Your task to perform on an android device: turn off sleep mode Image 0: 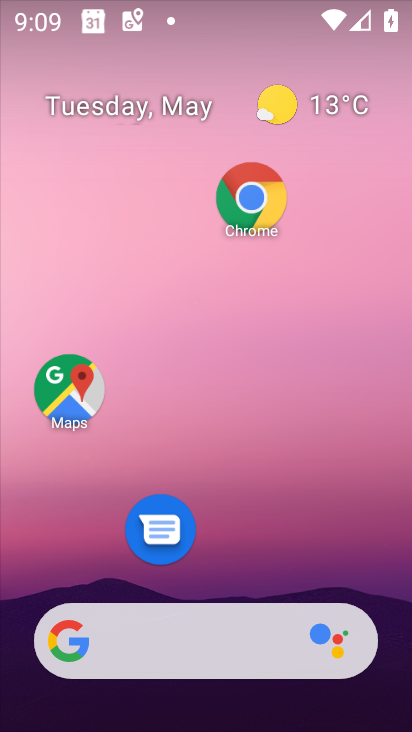
Step 0: drag from (322, 518) to (340, 314)
Your task to perform on an android device: turn off sleep mode Image 1: 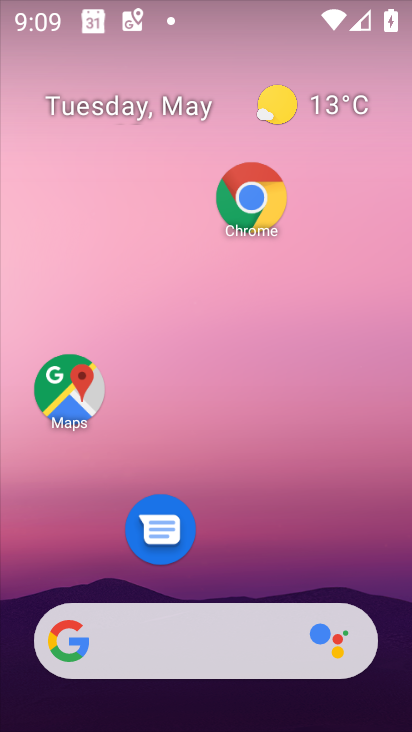
Step 1: drag from (309, 464) to (310, 9)
Your task to perform on an android device: turn off sleep mode Image 2: 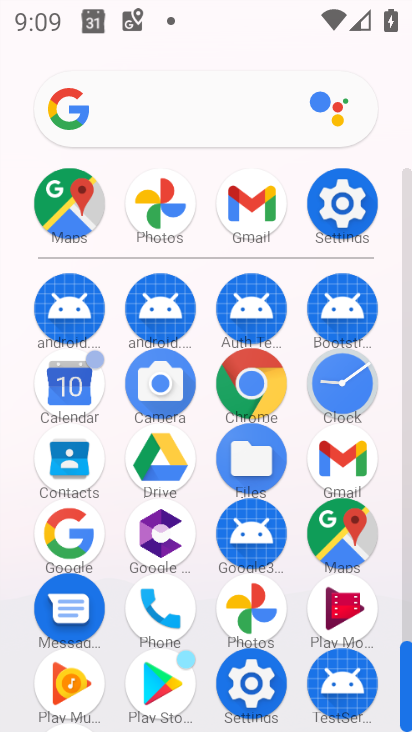
Step 2: click (320, 206)
Your task to perform on an android device: turn off sleep mode Image 3: 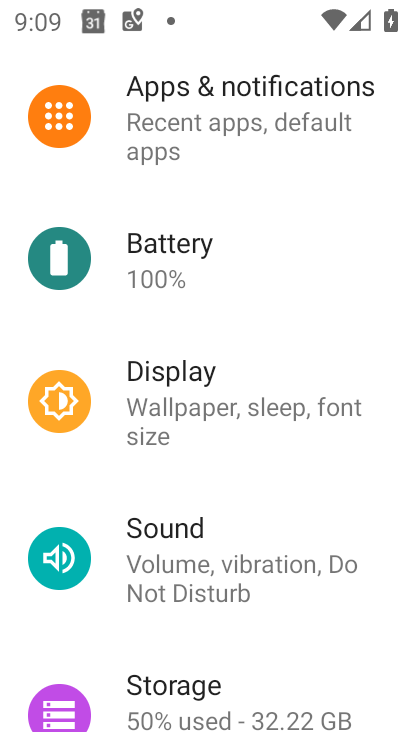
Step 3: click (266, 441)
Your task to perform on an android device: turn off sleep mode Image 4: 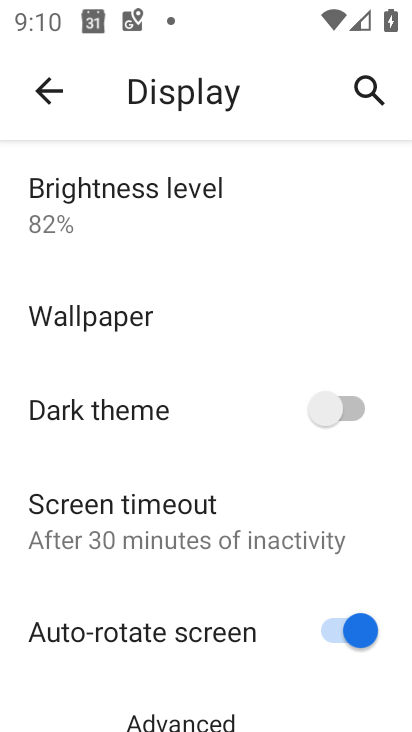
Step 4: click (217, 552)
Your task to perform on an android device: turn off sleep mode Image 5: 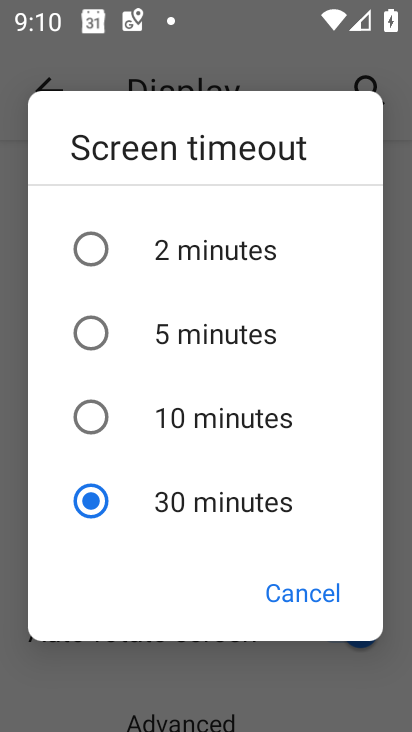
Step 5: click (154, 440)
Your task to perform on an android device: turn off sleep mode Image 6: 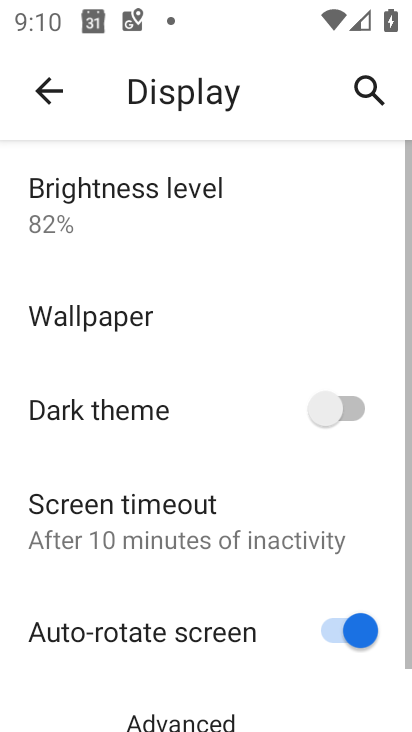
Step 6: task complete